Your task to perform on an android device: Show me the alarms in the clock app Image 0: 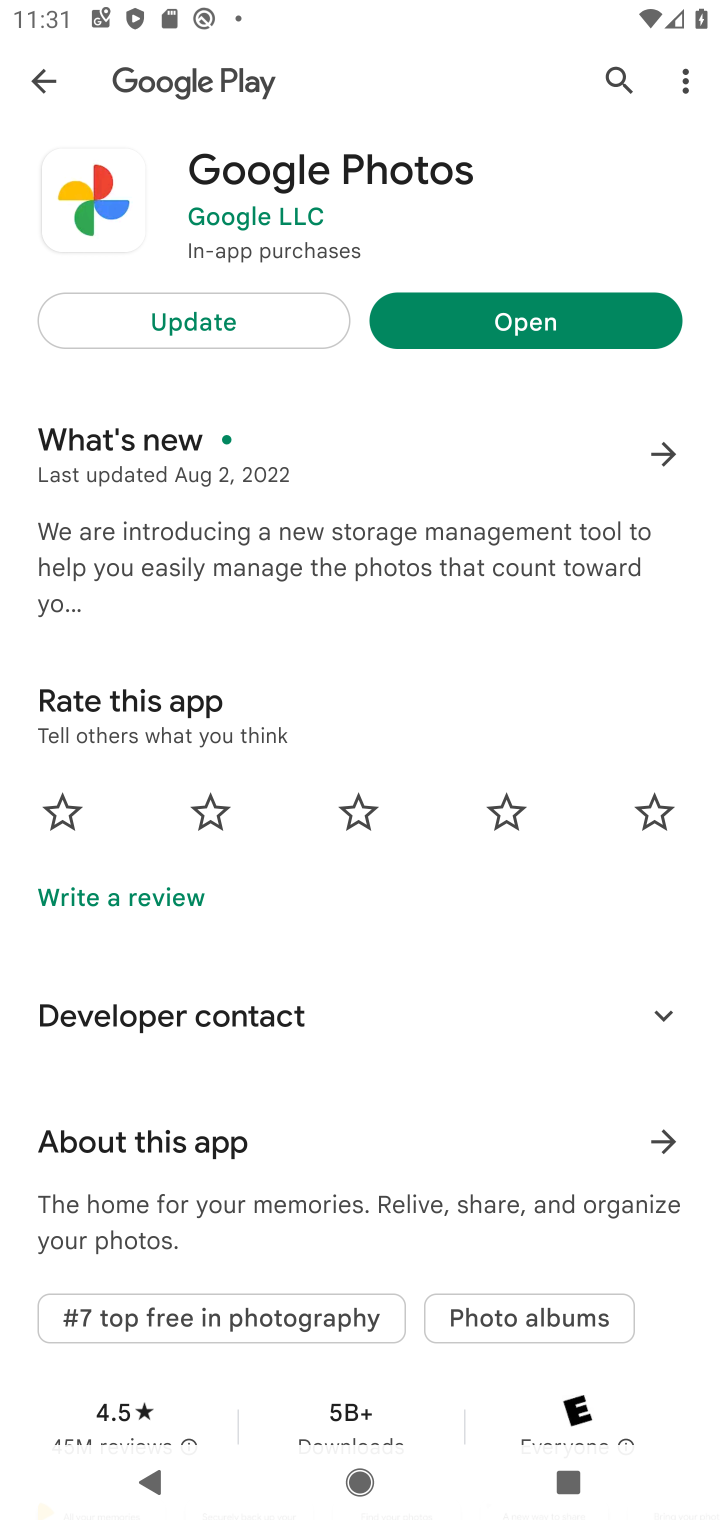
Step 0: press back button
Your task to perform on an android device: Show me the alarms in the clock app Image 1: 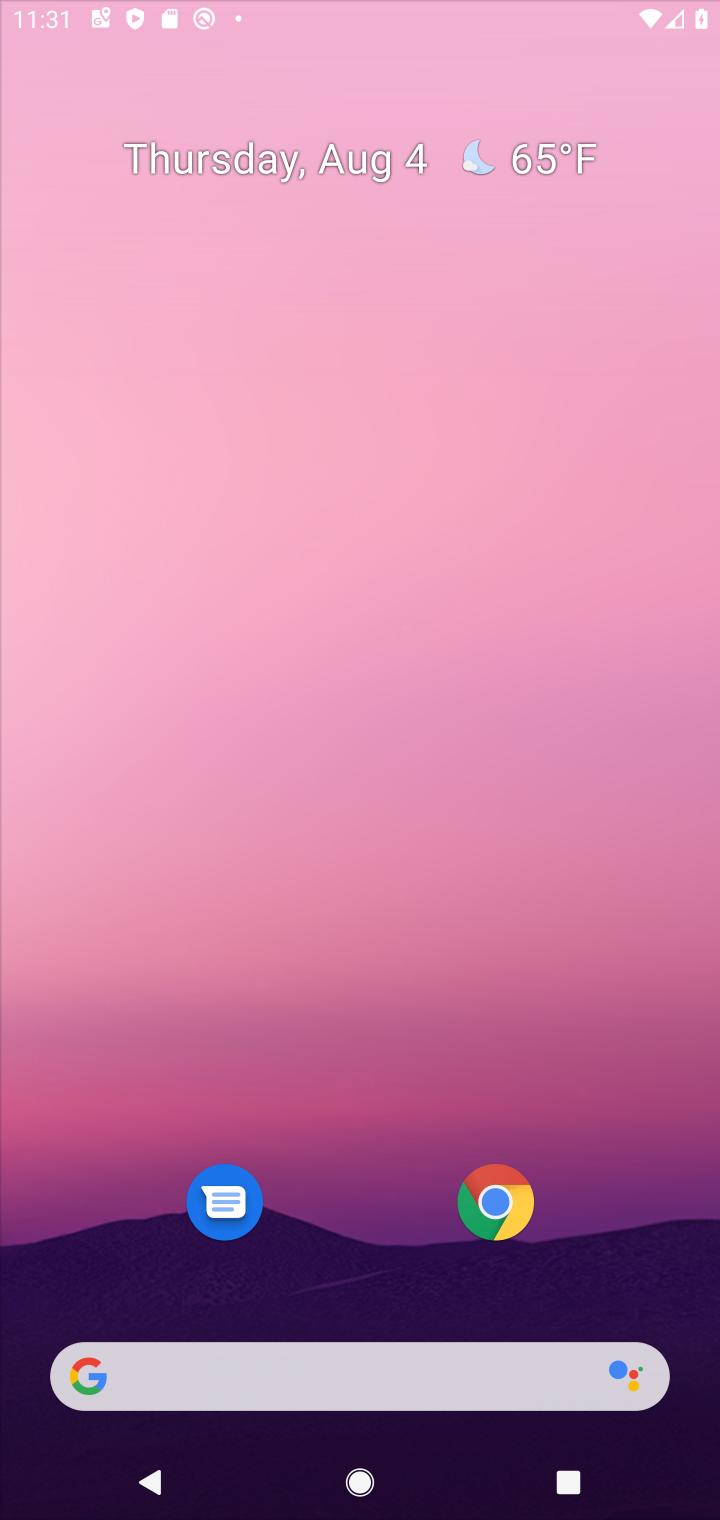
Step 1: press back button
Your task to perform on an android device: Show me the alarms in the clock app Image 2: 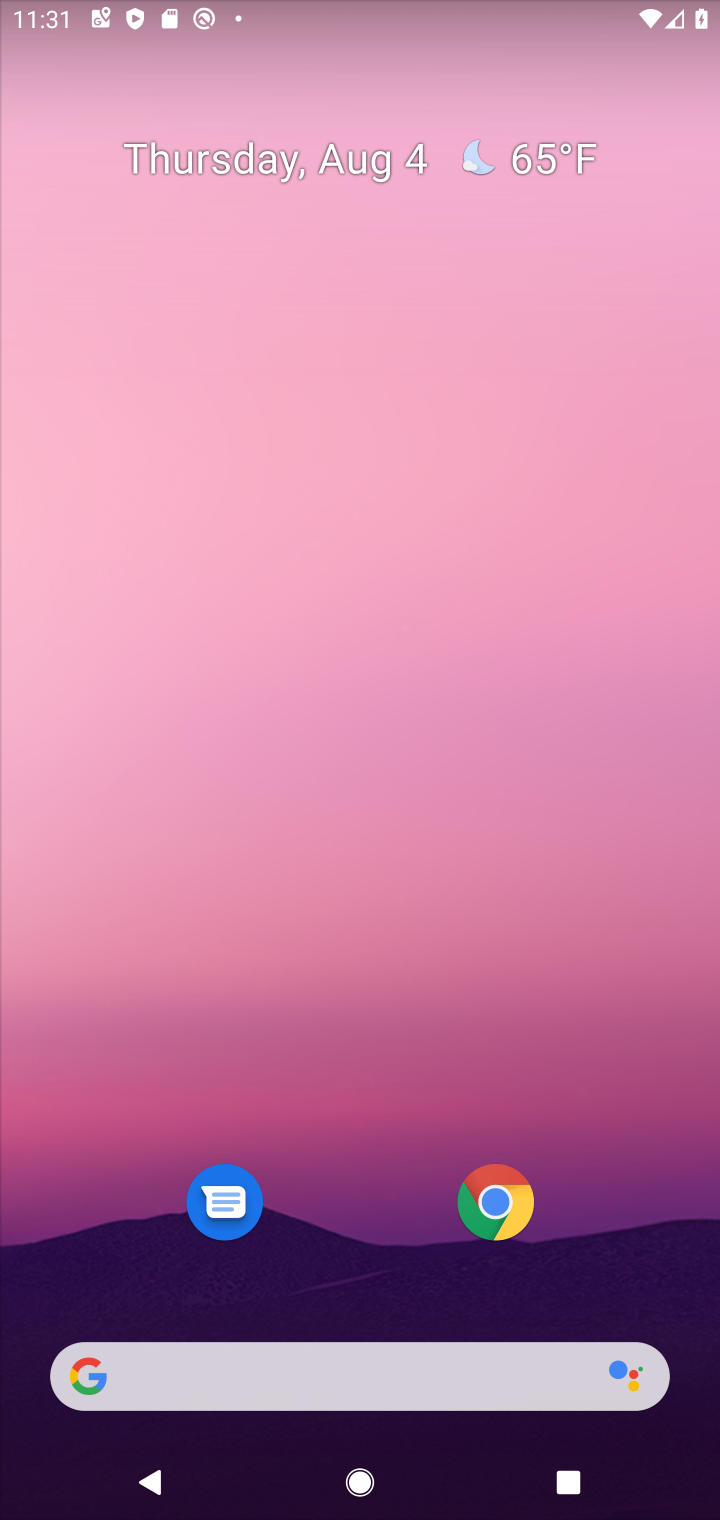
Step 2: drag from (402, 931) to (481, 53)
Your task to perform on an android device: Show me the alarms in the clock app Image 3: 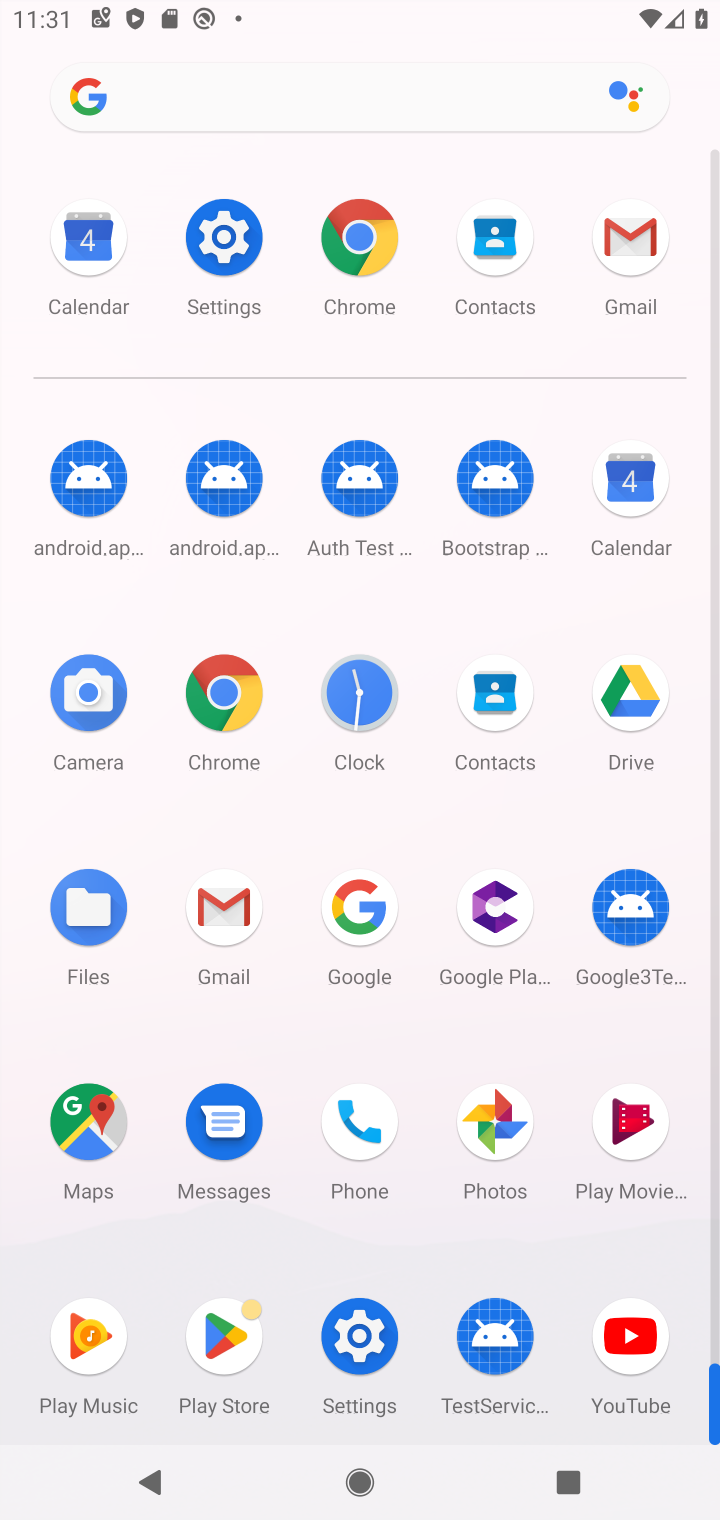
Step 3: click (371, 672)
Your task to perform on an android device: Show me the alarms in the clock app Image 4: 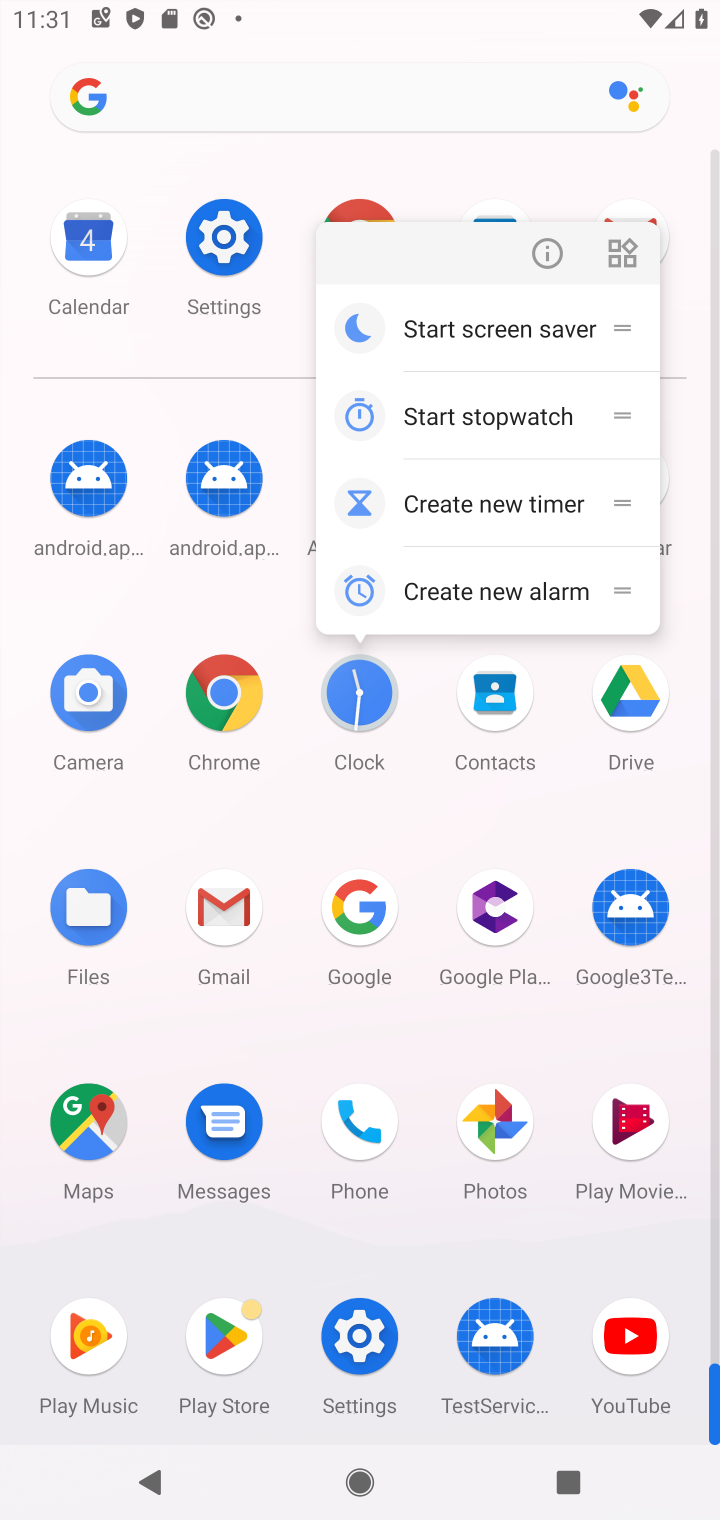
Step 4: click (384, 708)
Your task to perform on an android device: Show me the alarms in the clock app Image 5: 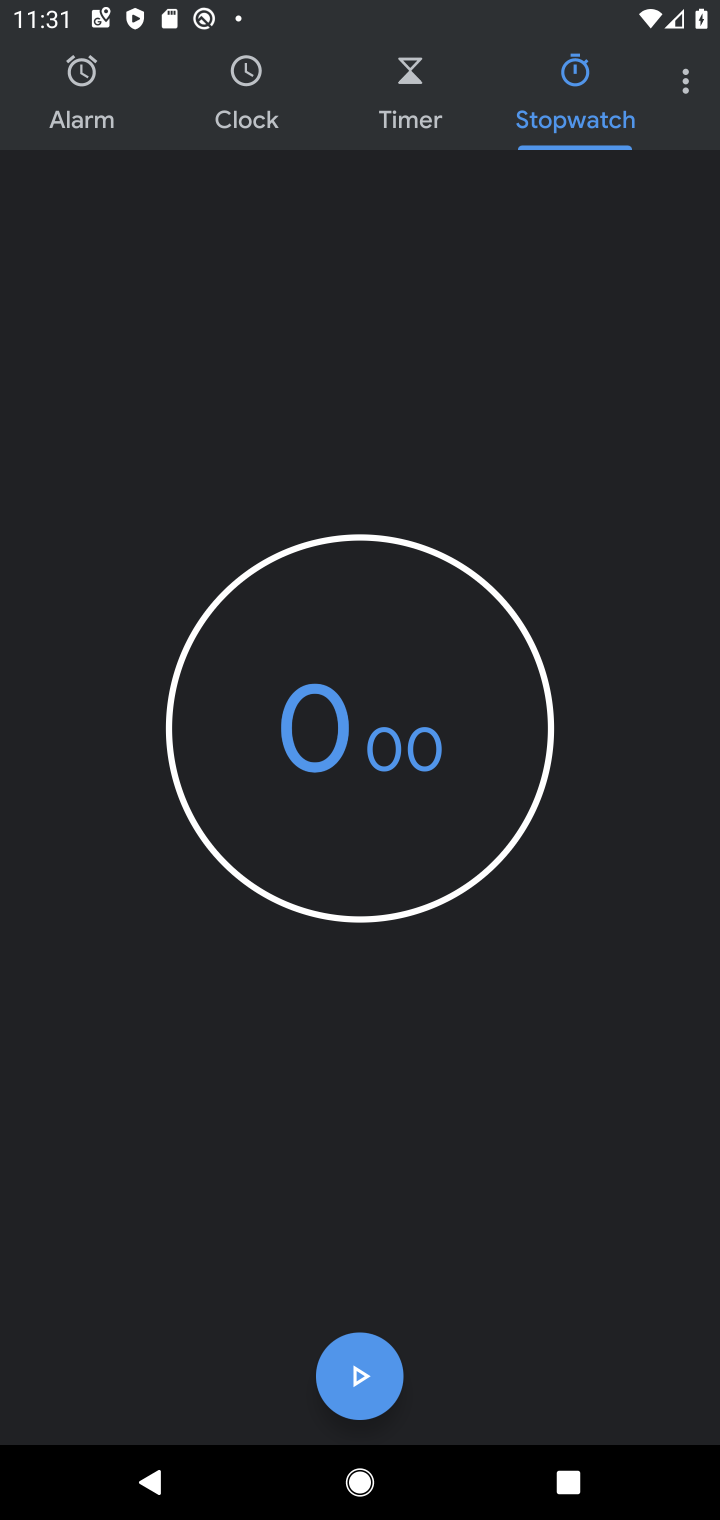
Step 5: click (76, 95)
Your task to perform on an android device: Show me the alarms in the clock app Image 6: 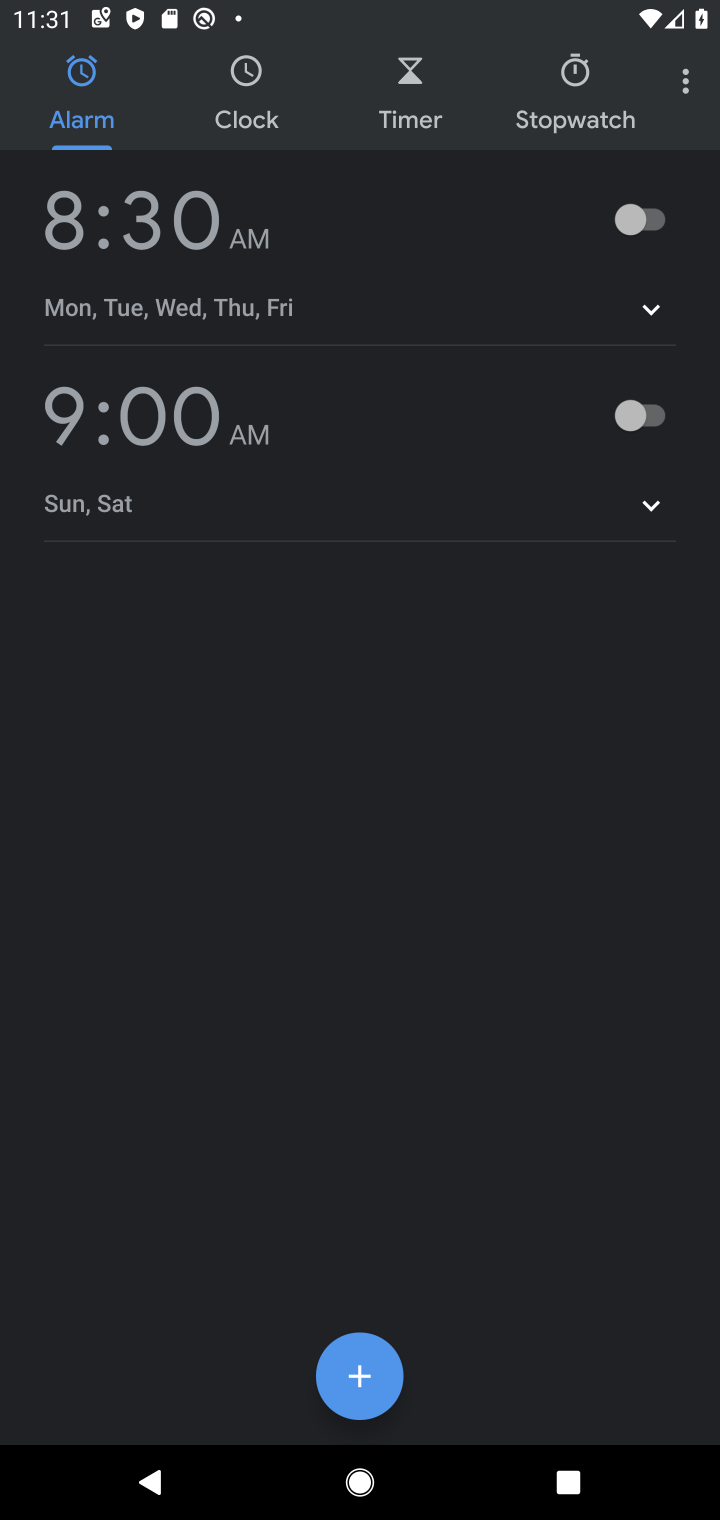
Step 6: task complete